Your task to perform on an android device: open app "Facebook Lite" (install if not already installed) Image 0: 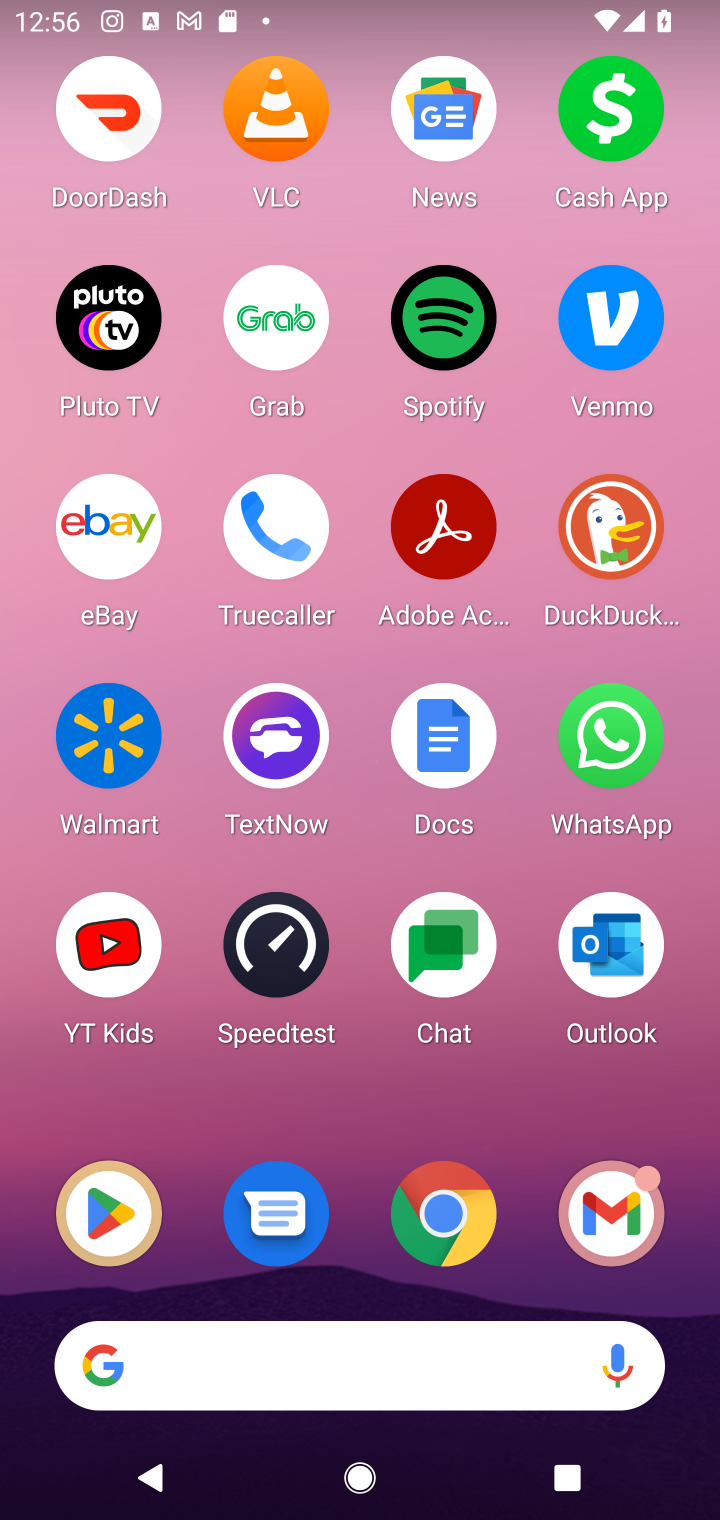
Step 0: click (90, 1215)
Your task to perform on an android device: open app "Facebook Lite" (install if not already installed) Image 1: 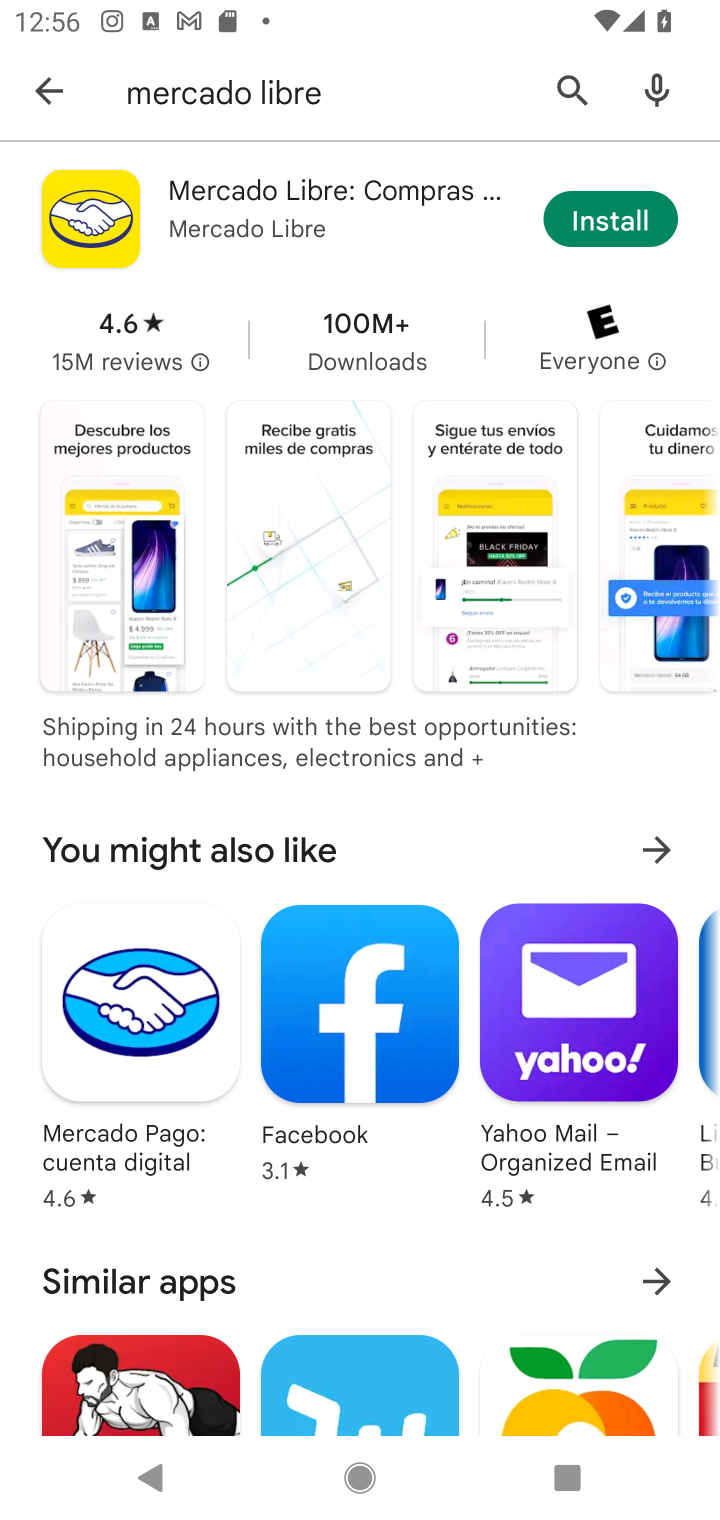
Step 1: click (51, 95)
Your task to perform on an android device: open app "Facebook Lite" (install if not already installed) Image 2: 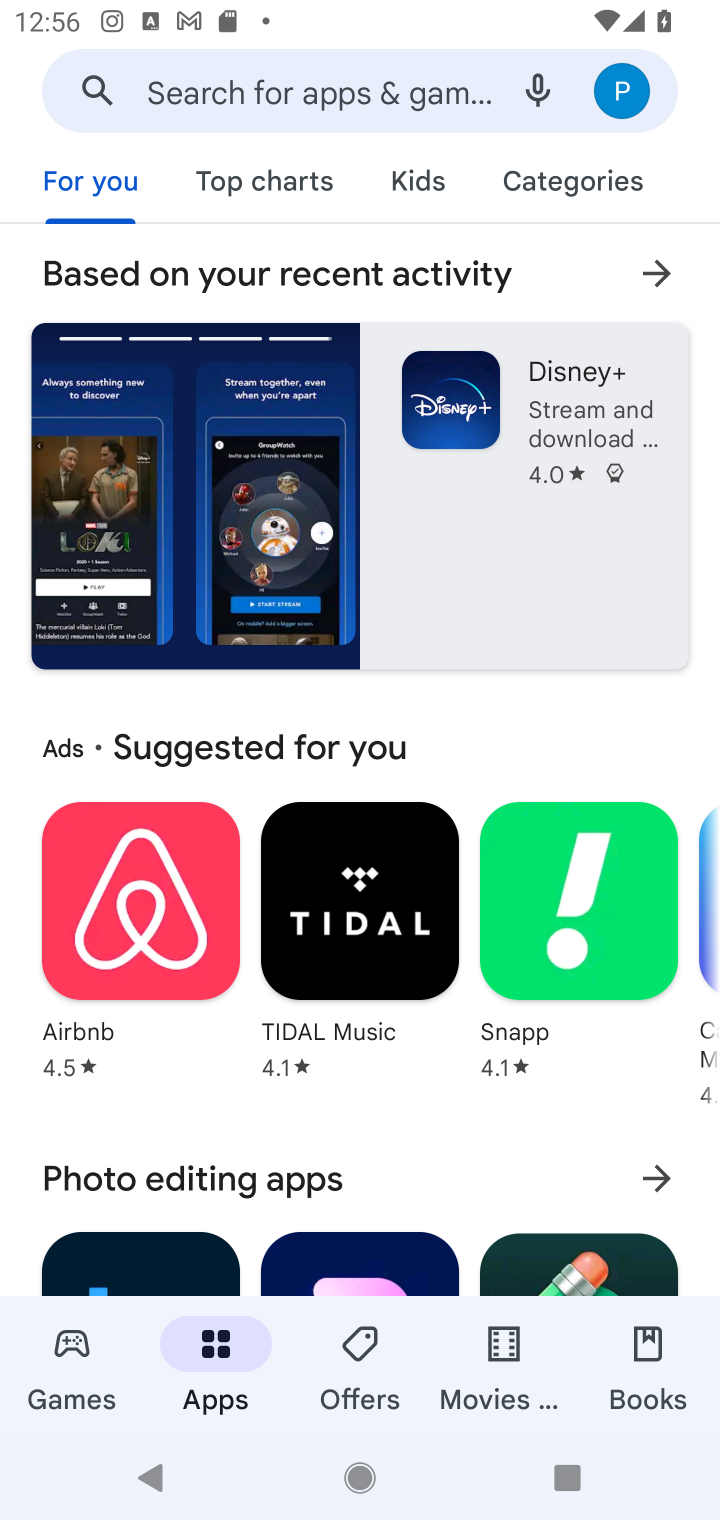
Step 2: click (319, 100)
Your task to perform on an android device: open app "Facebook Lite" (install if not already installed) Image 3: 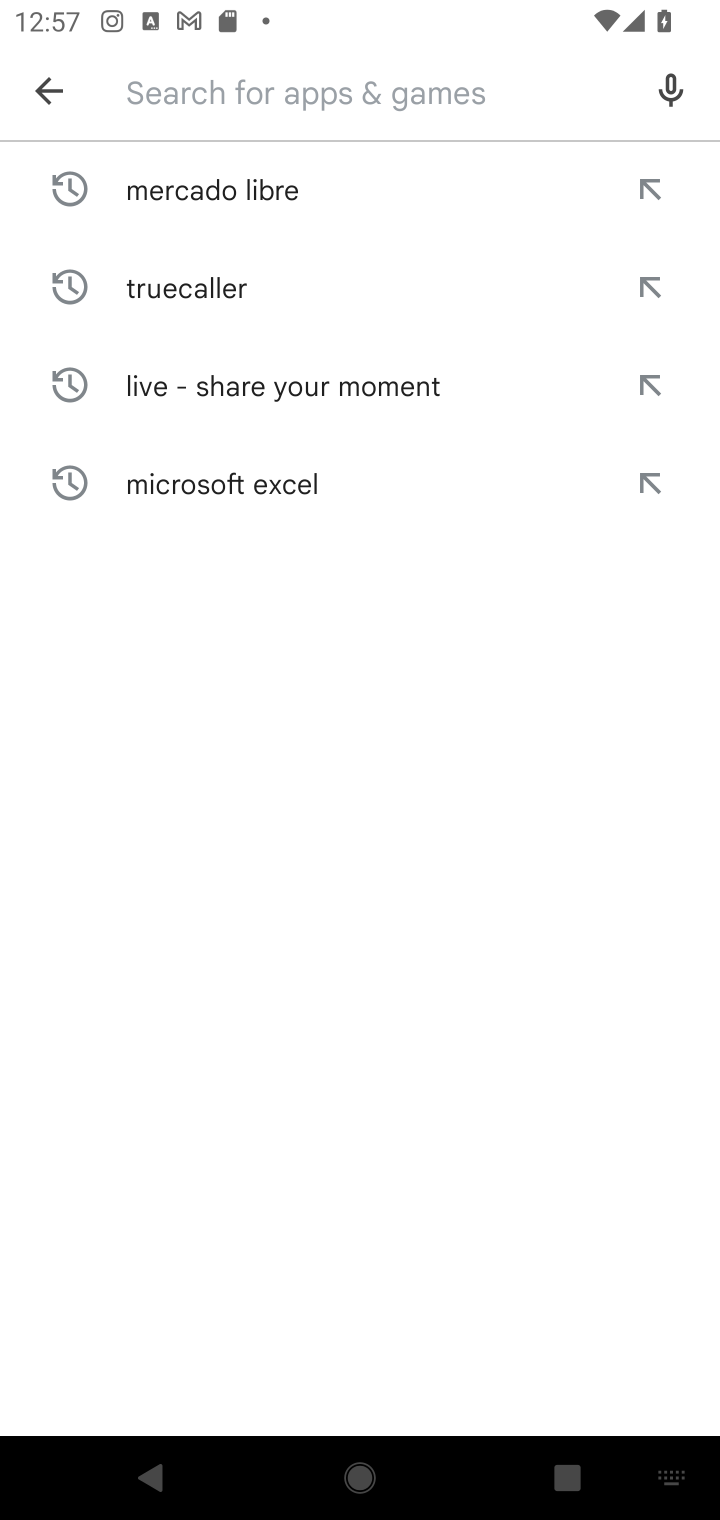
Step 3: type "Facebook Lite"
Your task to perform on an android device: open app "Facebook Lite" (install if not already installed) Image 4: 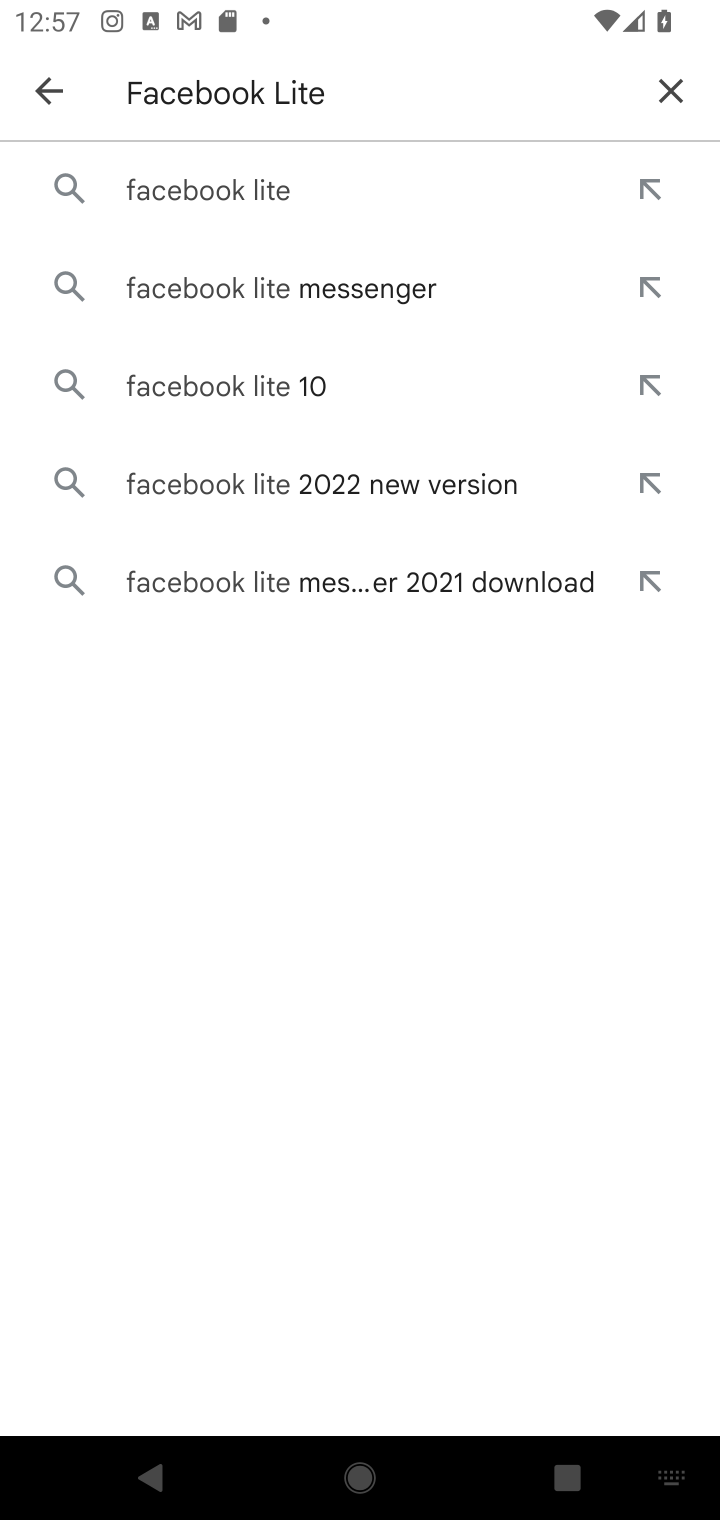
Step 4: click (198, 194)
Your task to perform on an android device: open app "Facebook Lite" (install if not already installed) Image 5: 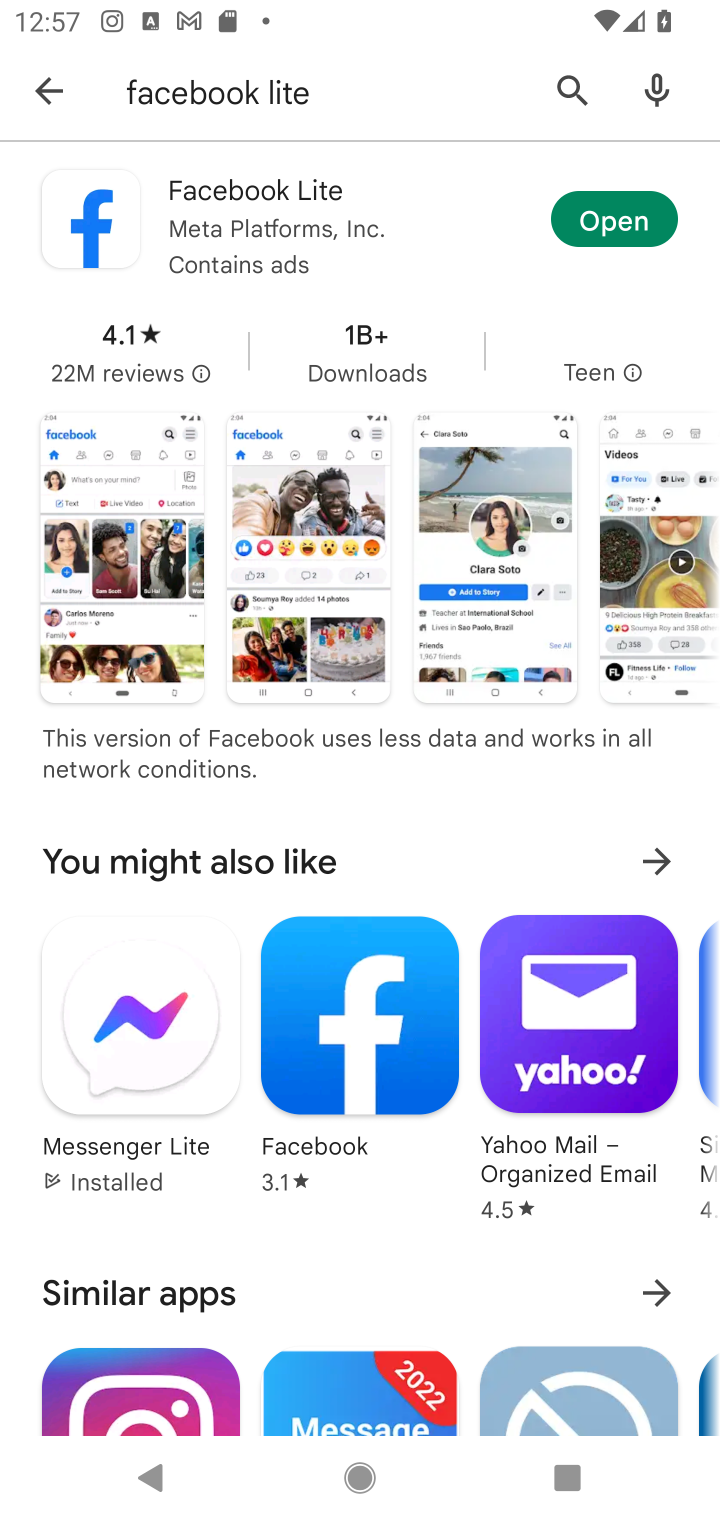
Step 5: click (631, 229)
Your task to perform on an android device: open app "Facebook Lite" (install if not already installed) Image 6: 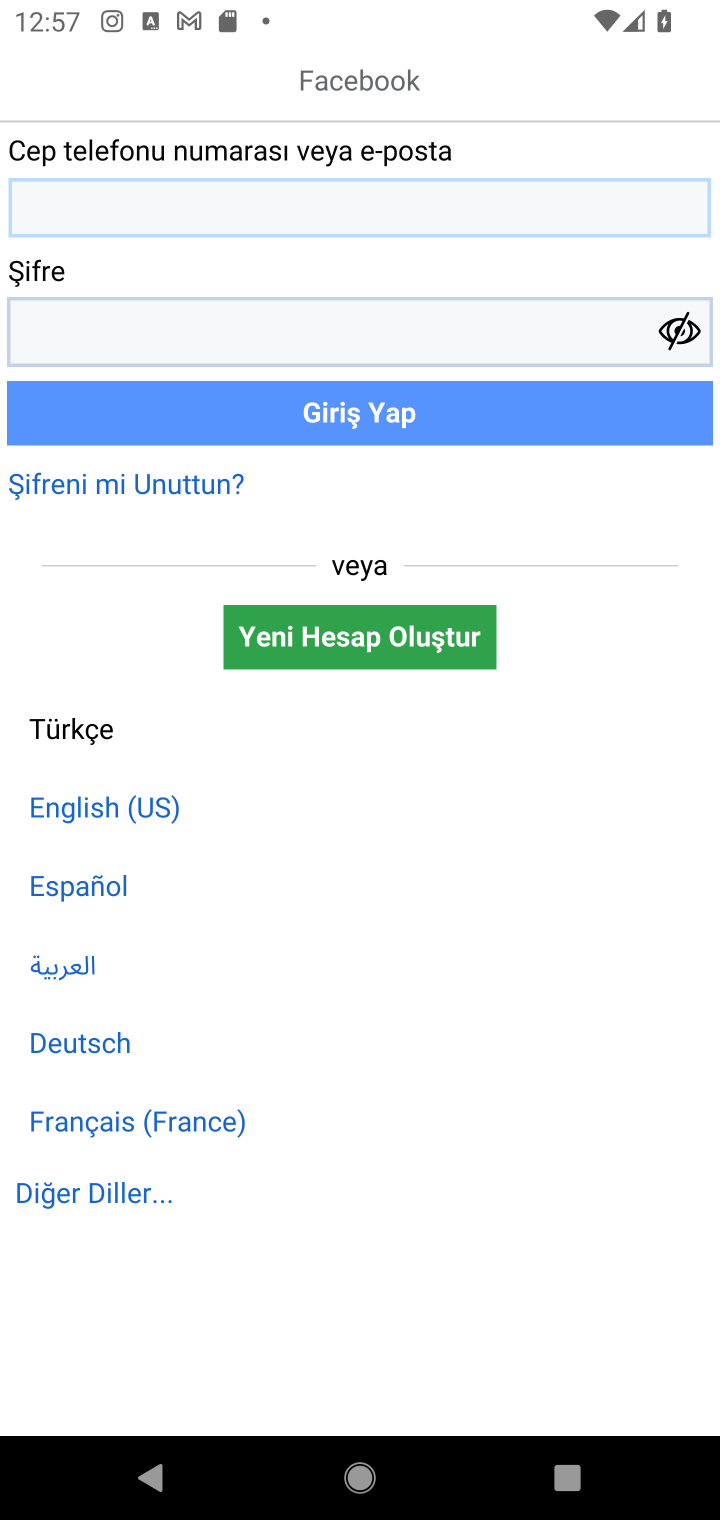
Step 6: task complete